Your task to perform on an android device: Go to Google Image 0: 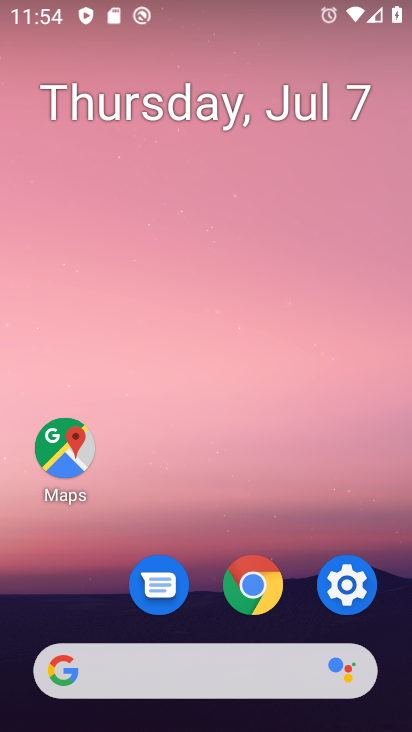
Step 0: click (82, 655)
Your task to perform on an android device: Go to Google Image 1: 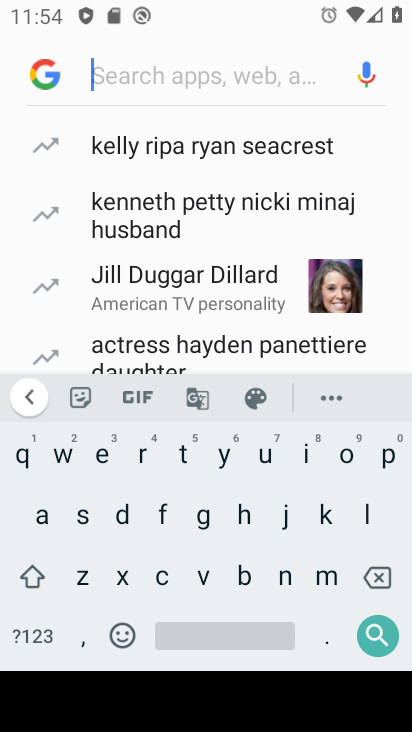
Step 1: click (38, 77)
Your task to perform on an android device: Go to Google Image 2: 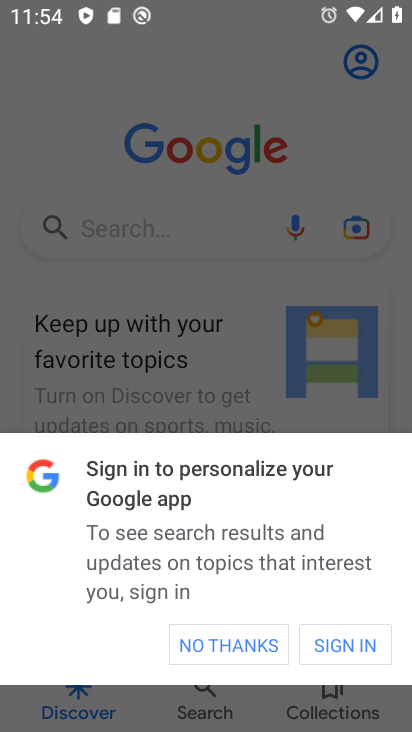
Step 2: click (182, 632)
Your task to perform on an android device: Go to Google Image 3: 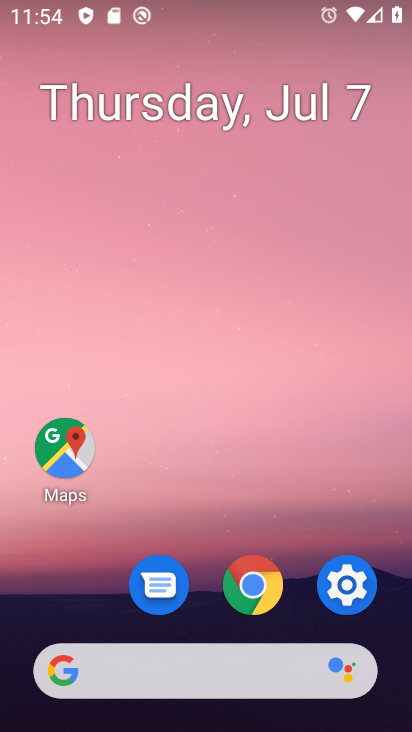
Step 3: click (88, 667)
Your task to perform on an android device: Go to Google Image 4: 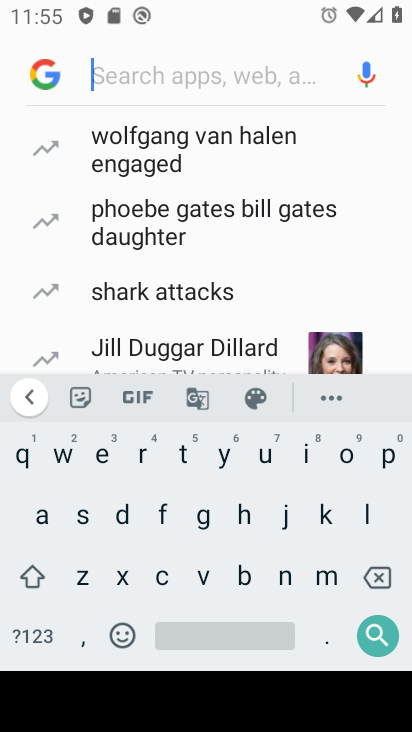
Step 4: click (52, 70)
Your task to perform on an android device: Go to Google Image 5: 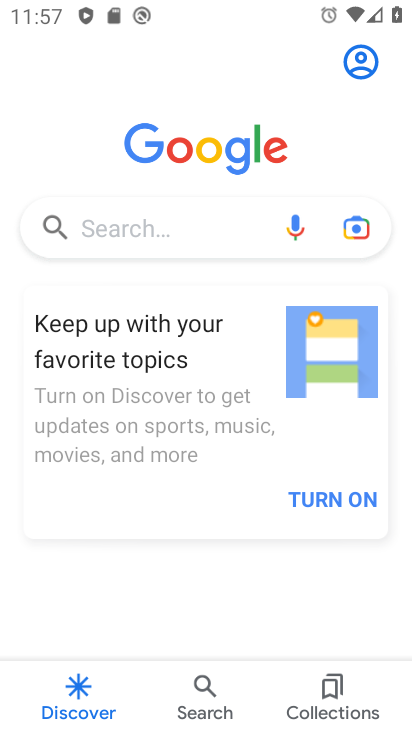
Step 5: task complete